Your task to perform on an android device: change your default location settings in chrome Image 0: 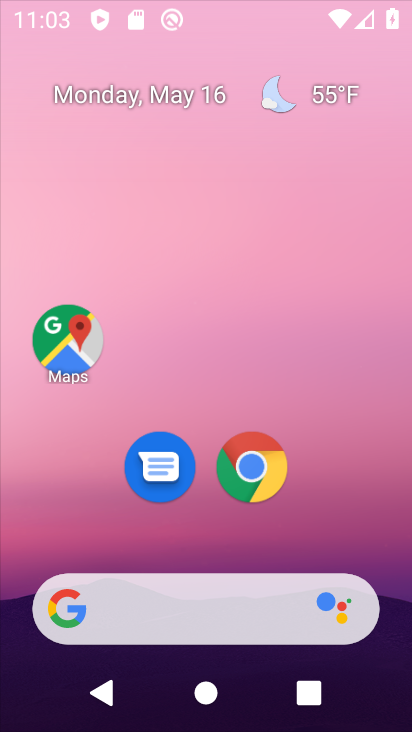
Step 0: click (363, 533)
Your task to perform on an android device: change your default location settings in chrome Image 1: 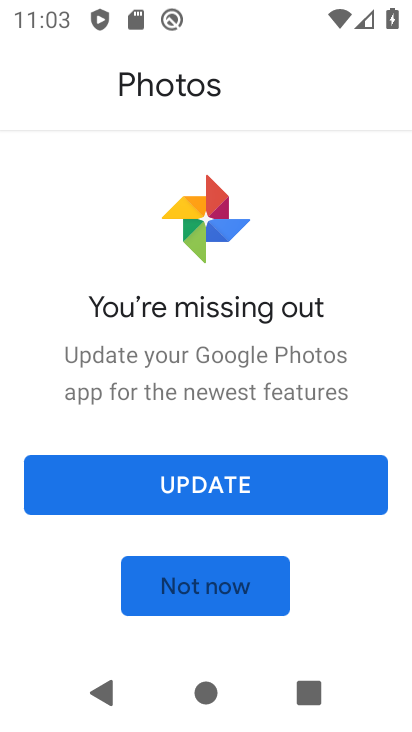
Step 1: press home button
Your task to perform on an android device: change your default location settings in chrome Image 2: 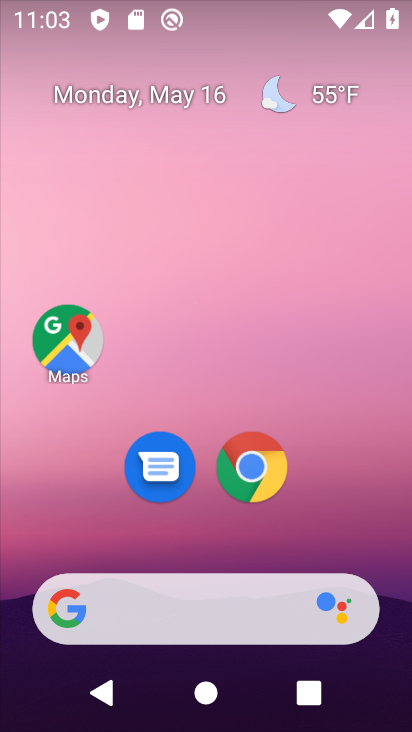
Step 2: drag from (234, 553) to (234, 0)
Your task to perform on an android device: change your default location settings in chrome Image 3: 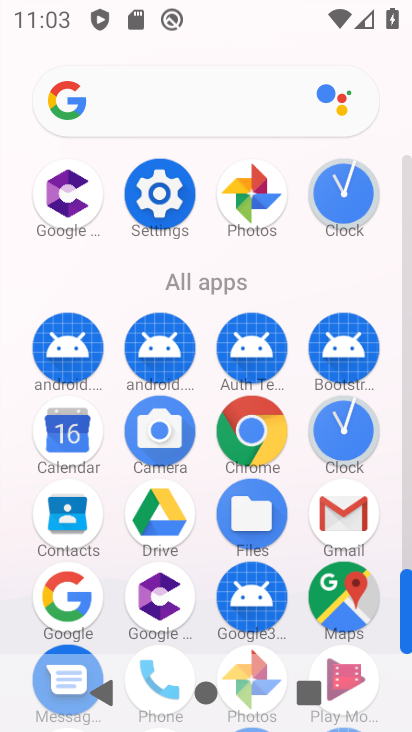
Step 3: click (246, 430)
Your task to perform on an android device: change your default location settings in chrome Image 4: 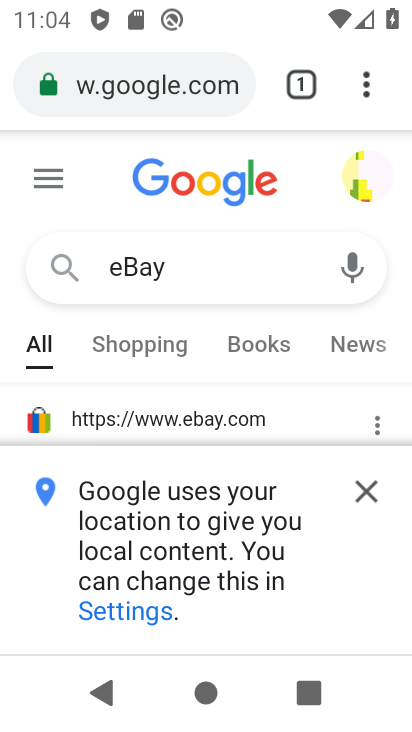
Step 4: click (358, 488)
Your task to perform on an android device: change your default location settings in chrome Image 5: 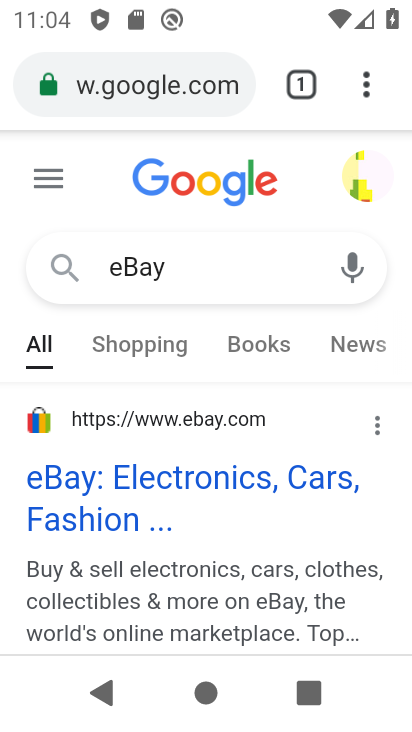
Step 5: click (364, 83)
Your task to perform on an android device: change your default location settings in chrome Image 6: 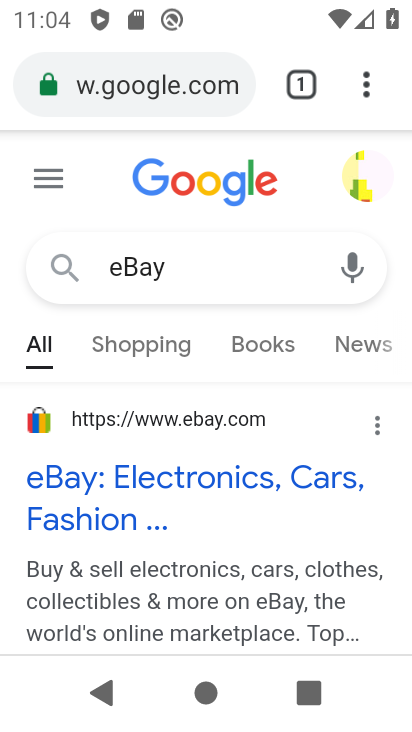
Step 6: click (373, 104)
Your task to perform on an android device: change your default location settings in chrome Image 7: 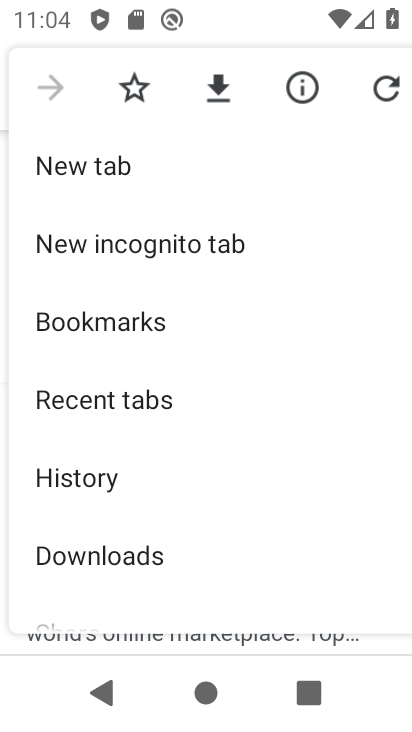
Step 7: drag from (169, 481) to (223, 127)
Your task to perform on an android device: change your default location settings in chrome Image 8: 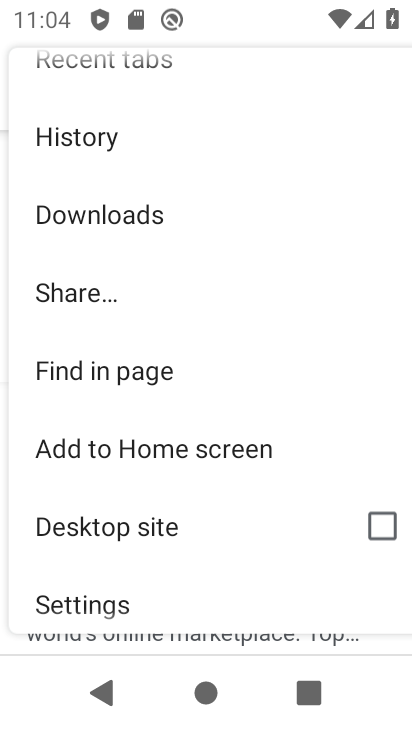
Step 8: click (75, 590)
Your task to perform on an android device: change your default location settings in chrome Image 9: 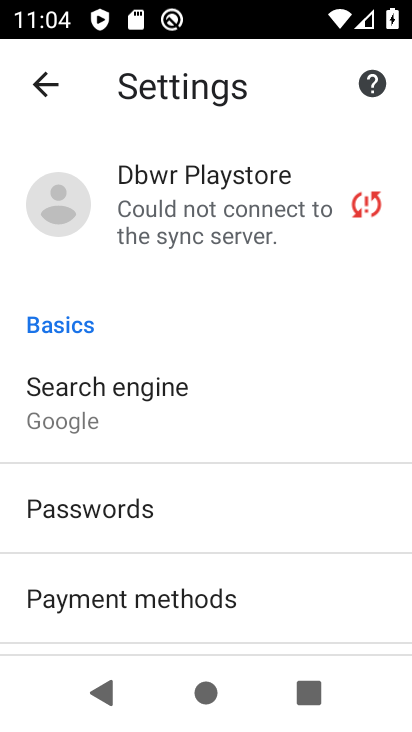
Step 9: drag from (118, 532) to (178, 257)
Your task to perform on an android device: change your default location settings in chrome Image 10: 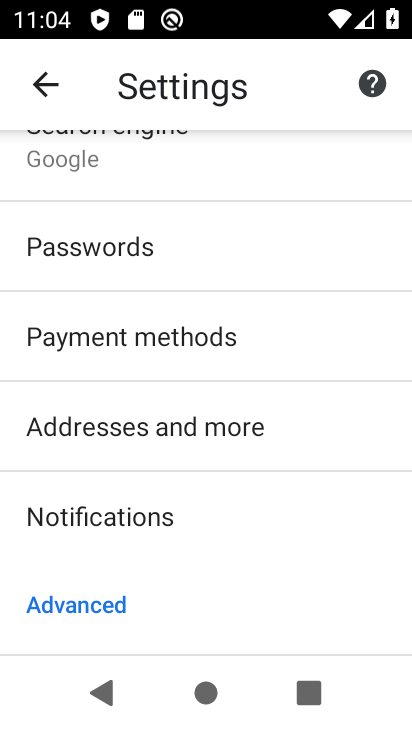
Step 10: drag from (158, 535) to (202, 341)
Your task to perform on an android device: change your default location settings in chrome Image 11: 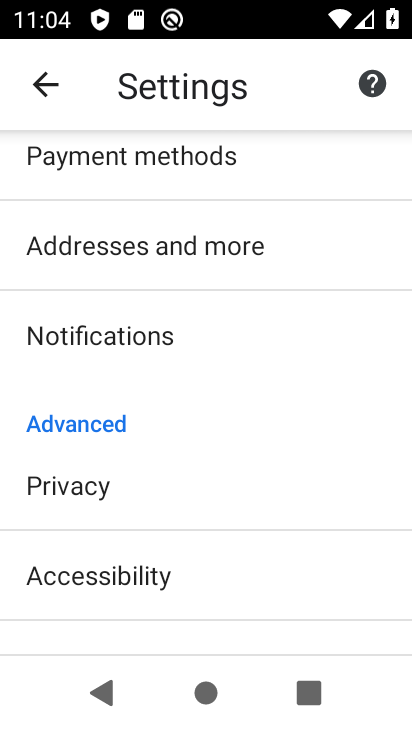
Step 11: drag from (122, 536) to (157, 341)
Your task to perform on an android device: change your default location settings in chrome Image 12: 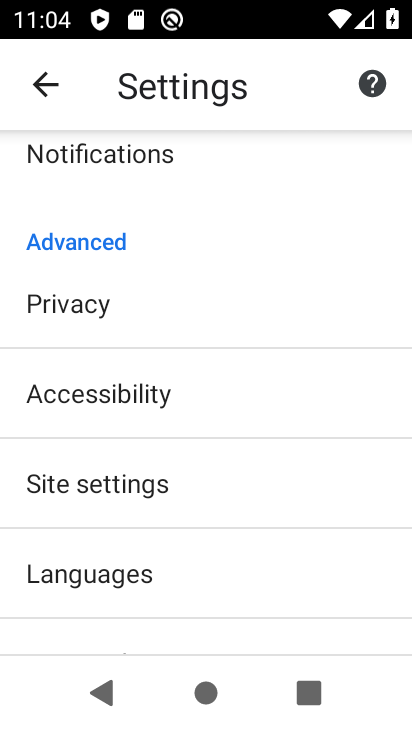
Step 12: click (111, 489)
Your task to perform on an android device: change your default location settings in chrome Image 13: 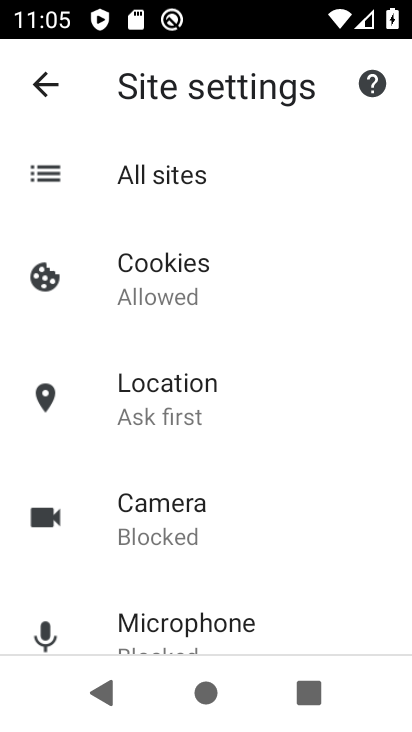
Step 13: click (158, 409)
Your task to perform on an android device: change your default location settings in chrome Image 14: 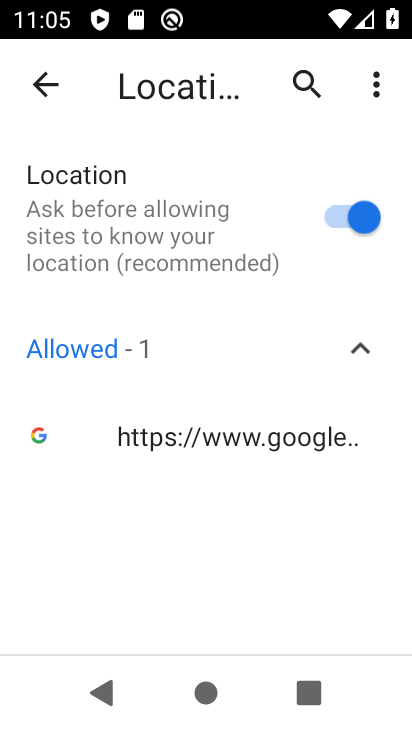
Step 14: click (354, 213)
Your task to perform on an android device: change your default location settings in chrome Image 15: 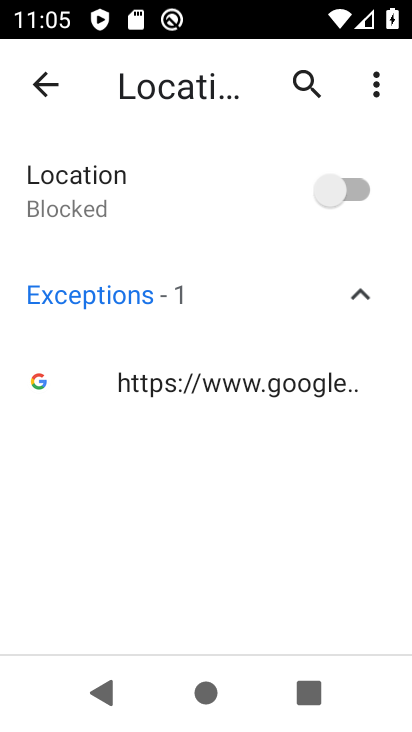
Step 15: task complete